Your task to perform on an android device: Show me recent news Image 0: 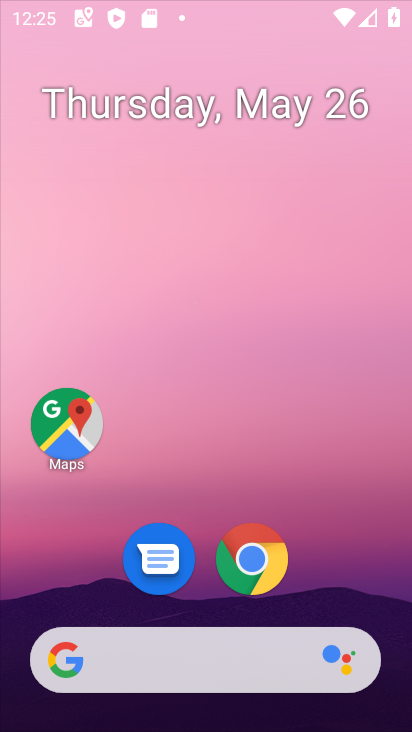
Step 0: press home button
Your task to perform on an android device: Show me recent news Image 1: 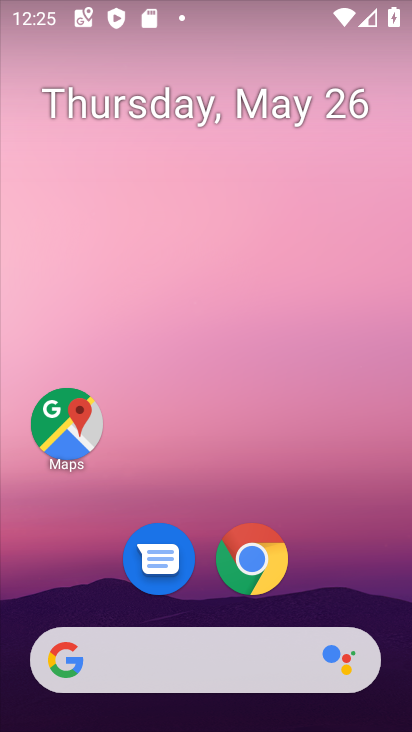
Step 1: task complete